Your task to perform on an android device: delete location history Image 0: 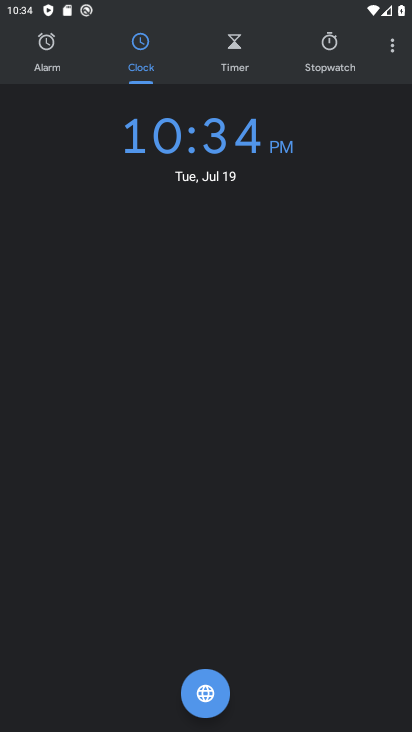
Step 0: task impossible